Your task to perform on an android device: Open maps Image 0: 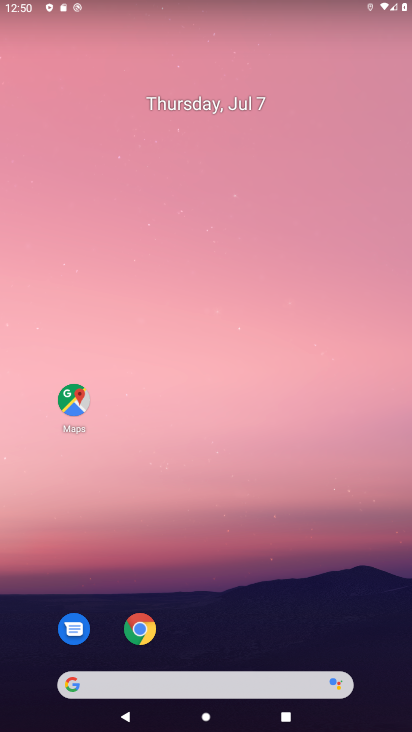
Step 0: click (75, 402)
Your task to perform on an android device: Open maps Image 1: 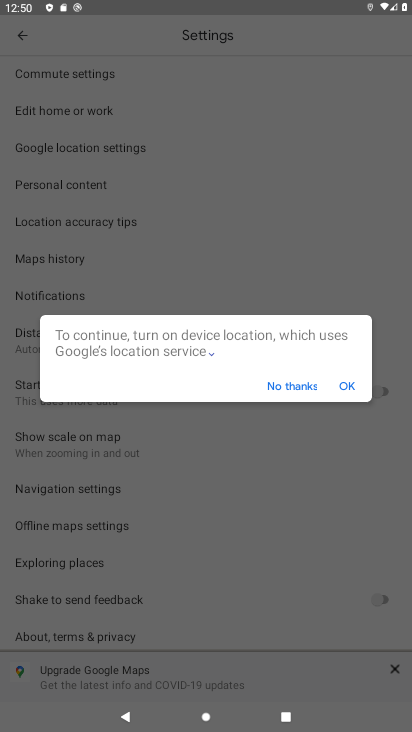
Step 1: click (278, 387)
Your task to perform on an android device: Open maps Image 2: 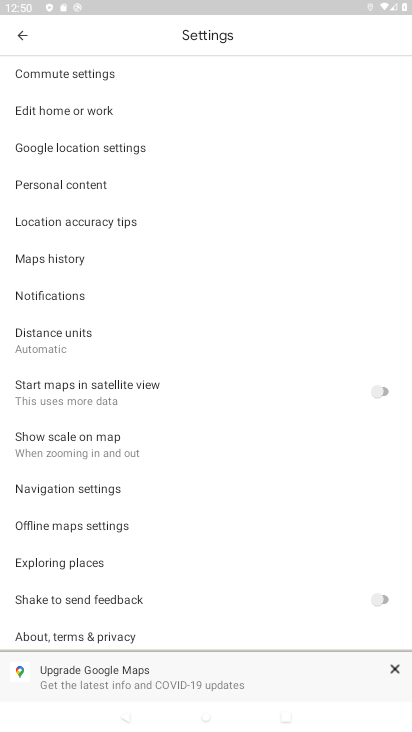
Step 2: task complete